Your task to perform on an android device: uninstall "Roku - Official Remote Control" Image 0: 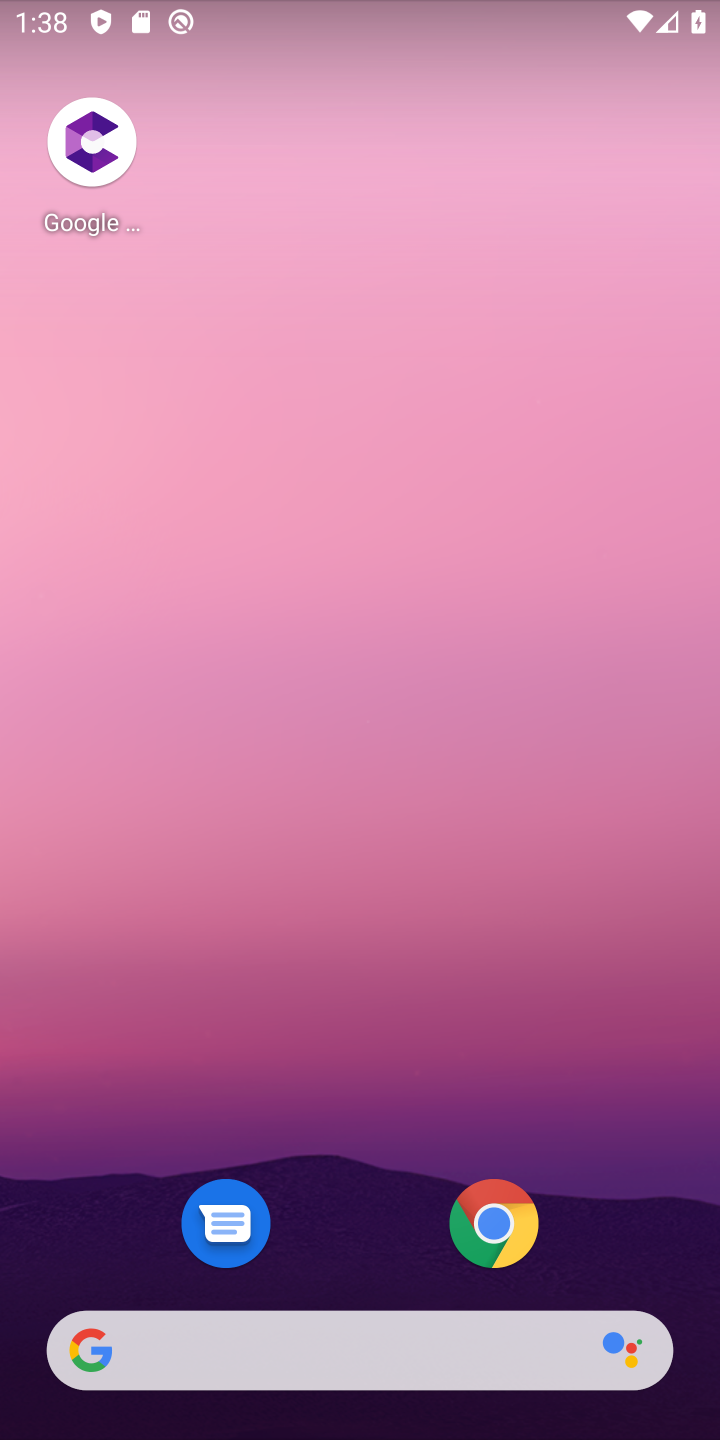
Step 0: drag from (376, 1174) to (525, 87)
Your task to perform on an android device: uninstall "Roku - Official Remote Control" Image 1: 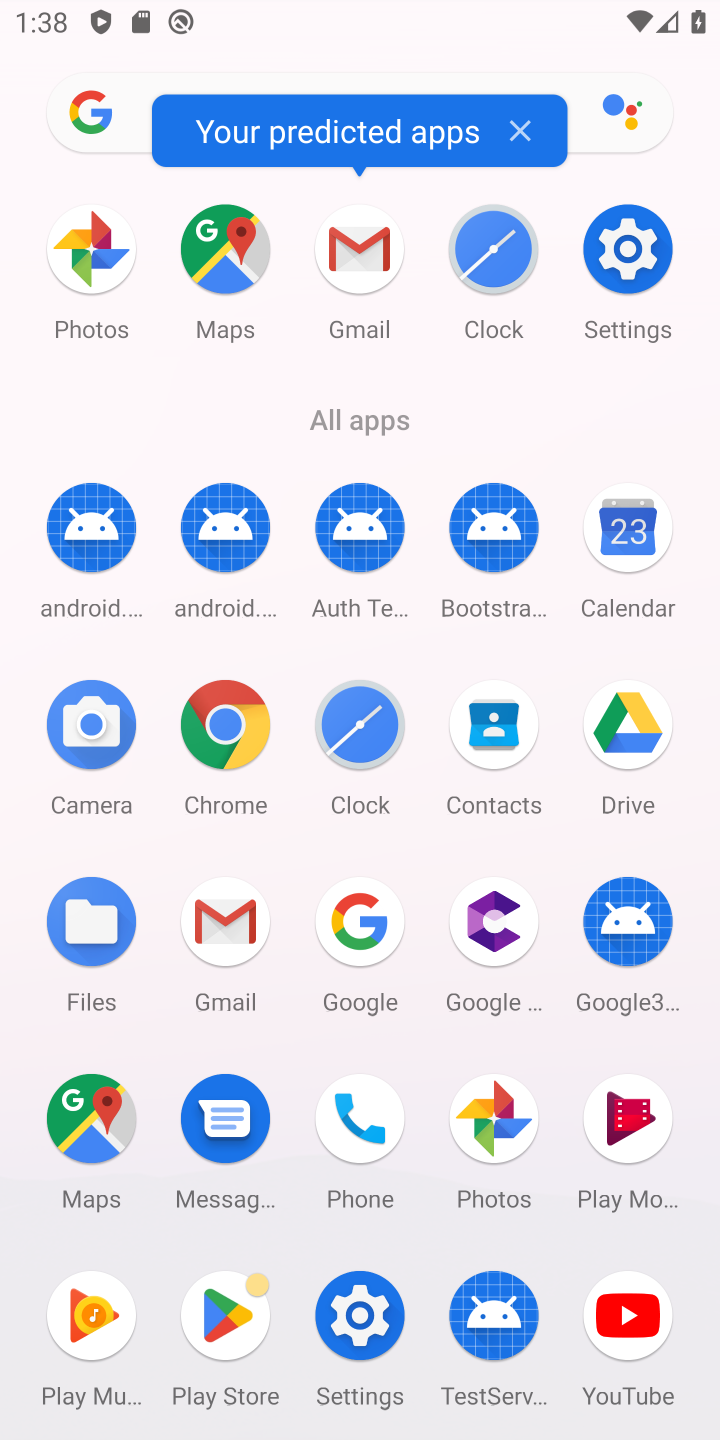
Step 1: click (223, 1334)
Your task to perform on an android device: uninstall "Roku - Official Remote Control" Image 2: 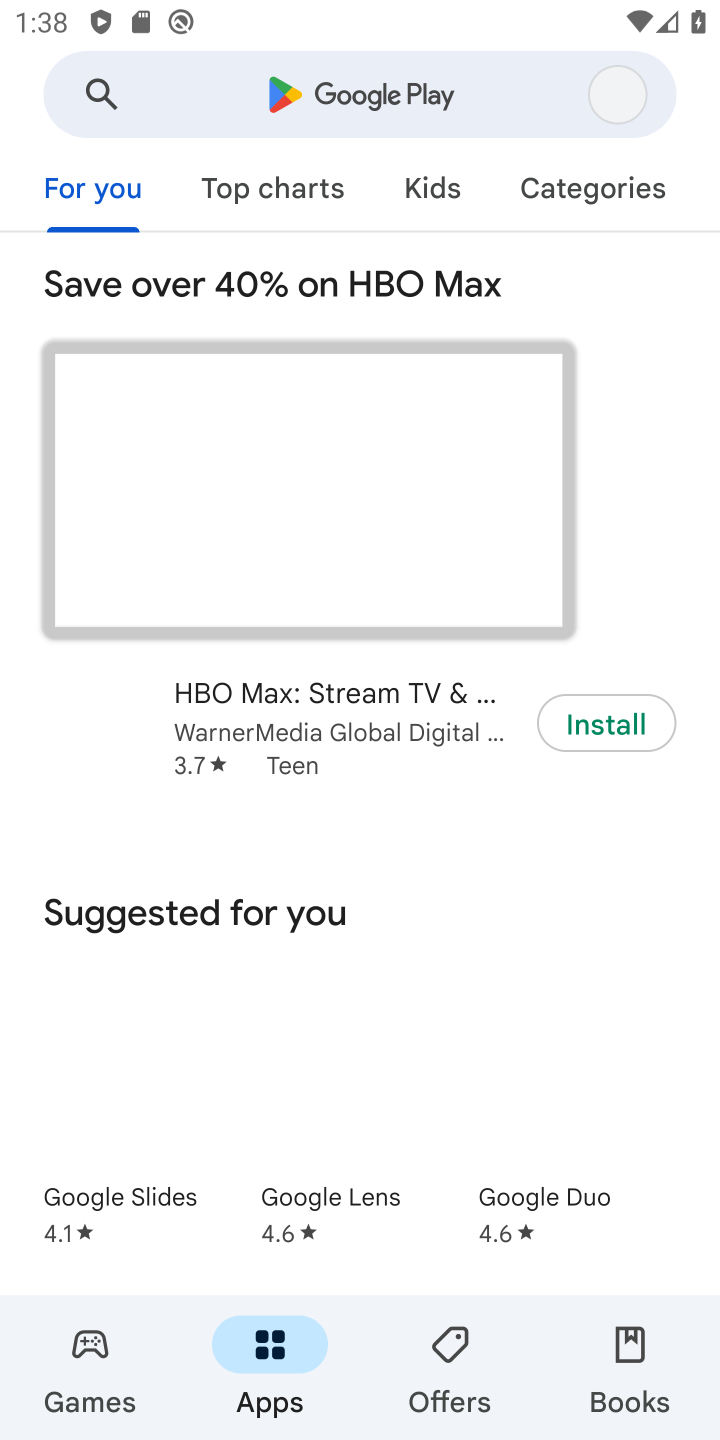
Step 2: click (396, 113)
Your task to perform on an android device: uninstall "Roku - Official Remote Control" Image 3: 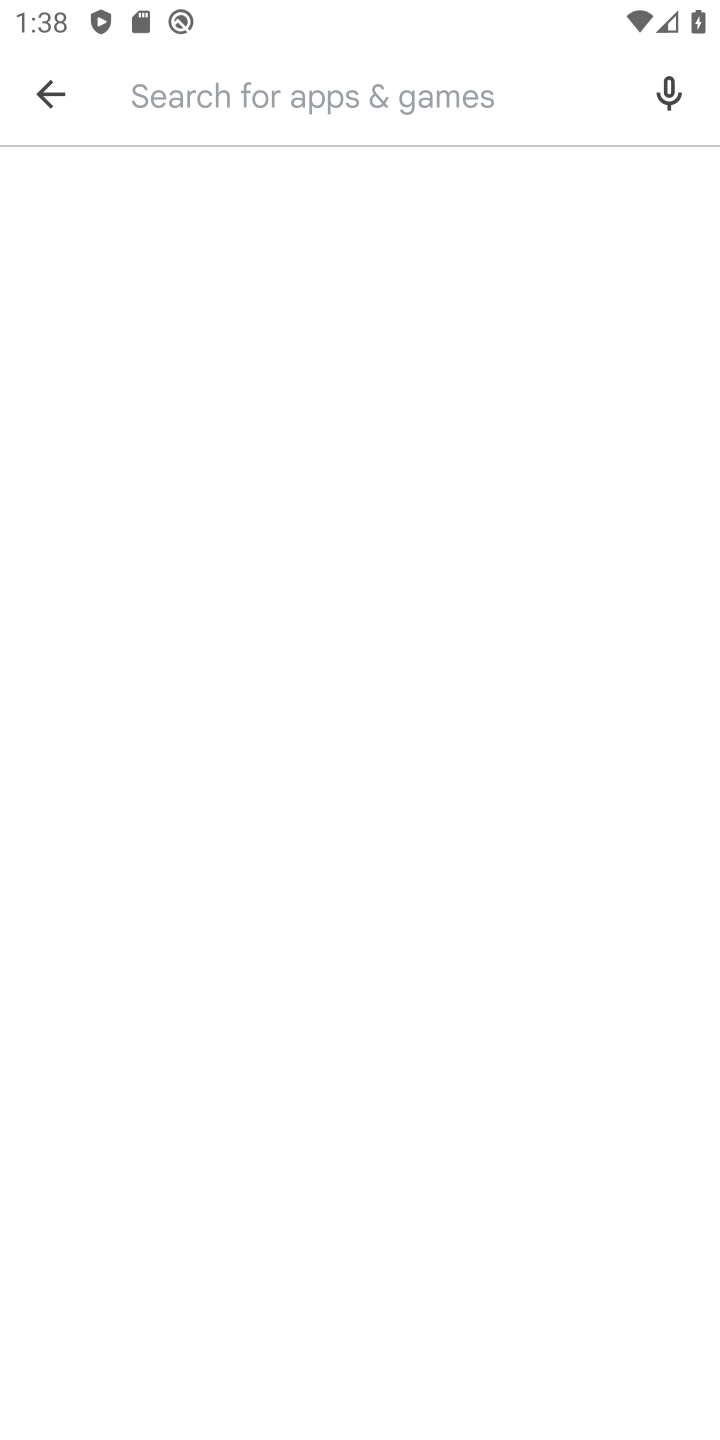
Step 3: type "roku"
Your task to perform on an android device: uninstall "Roku - Official Remote Control" Image 4: 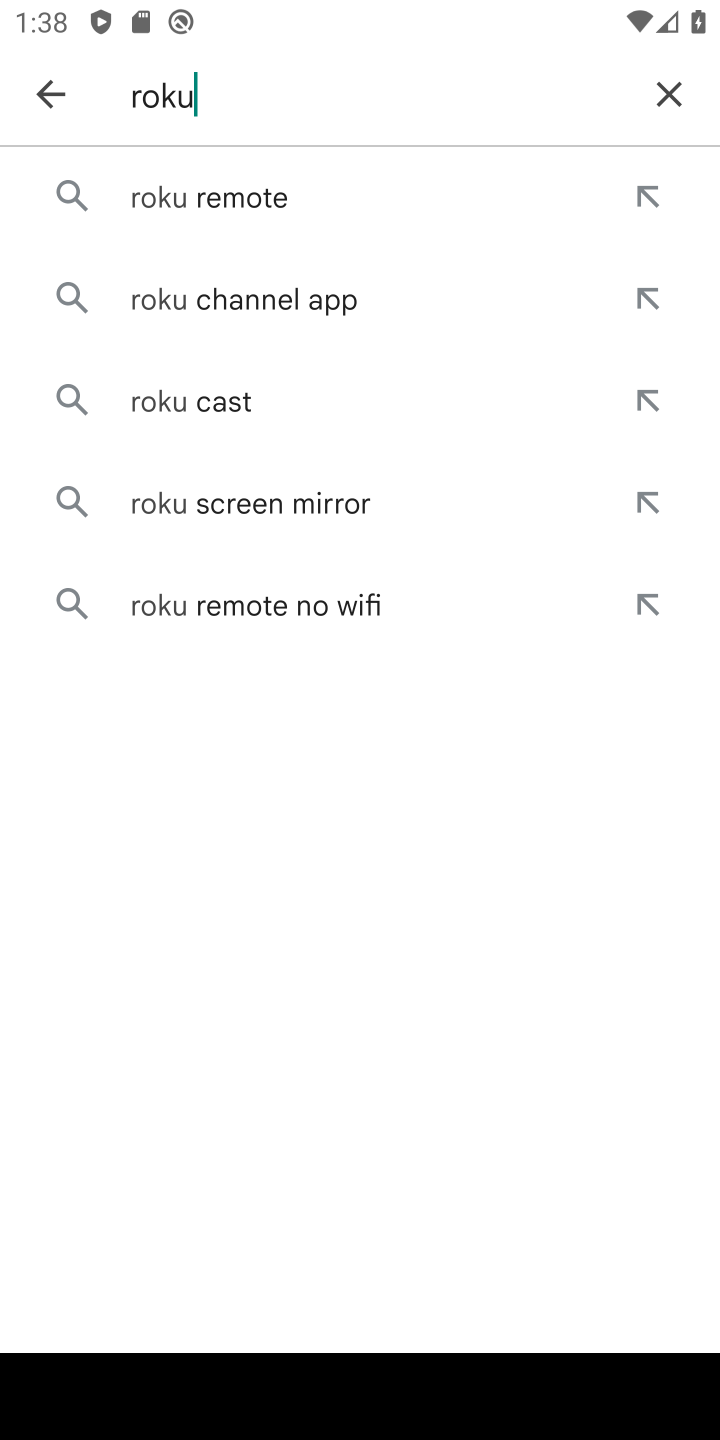
Step 4: click (242, 204)
Your task to perform on an android device: uninstall "Roku - Official Remote Control" Image 5: 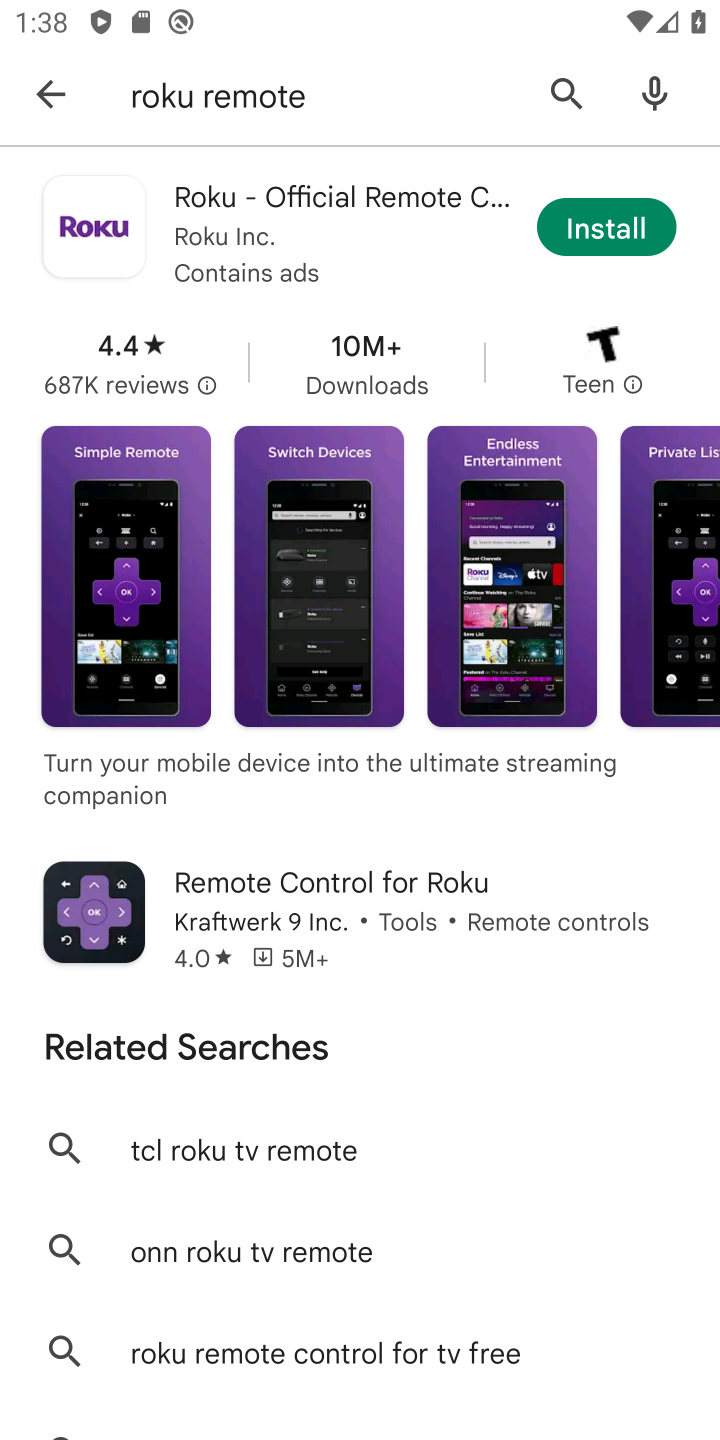
Step 5: task complete